Your task to perform on an android device: turn off location Image 0: 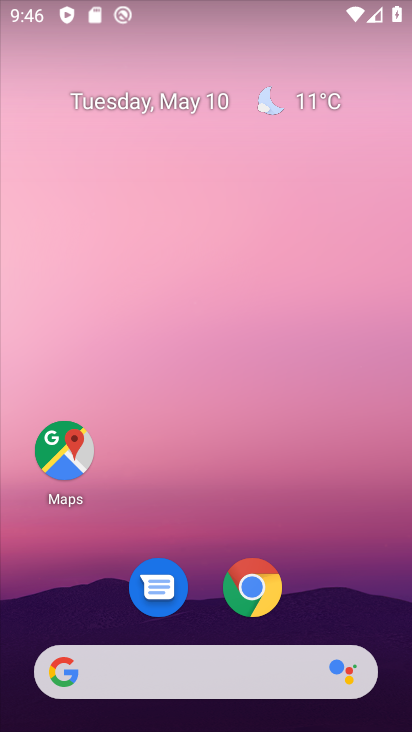
Step 0: drag from (197, 599) to (245, 299)
Your task to perform on an android device: turn off location Image 1: 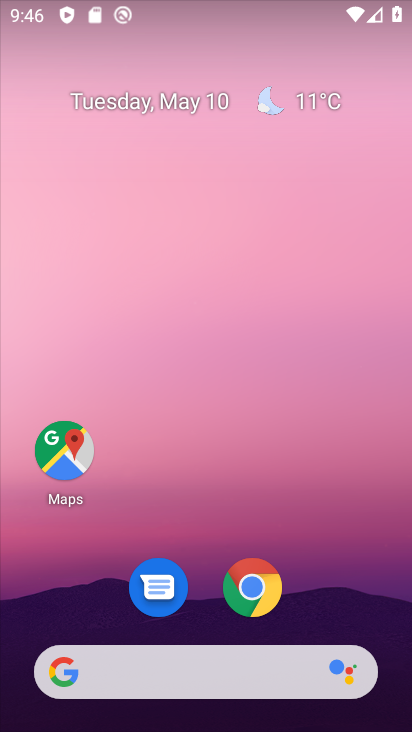
Step 1: drag from (249, 595) to (324, 111)
Your task to perform on an android device: turn off location Image 2: 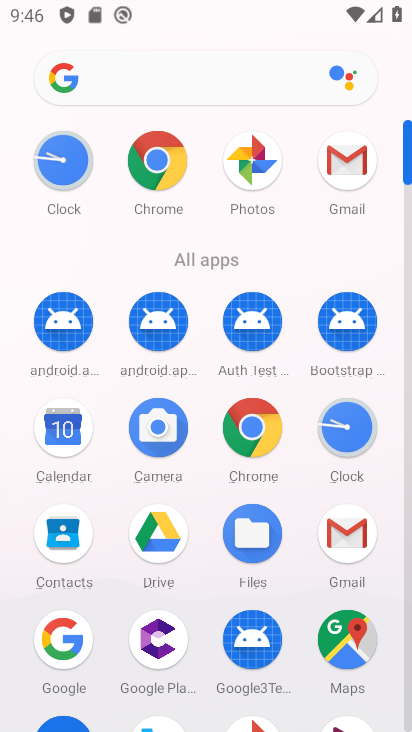
Step 2: drag from (224, 578) to (273, 65)
Your task to perform on an android device: turn off location Image 3: 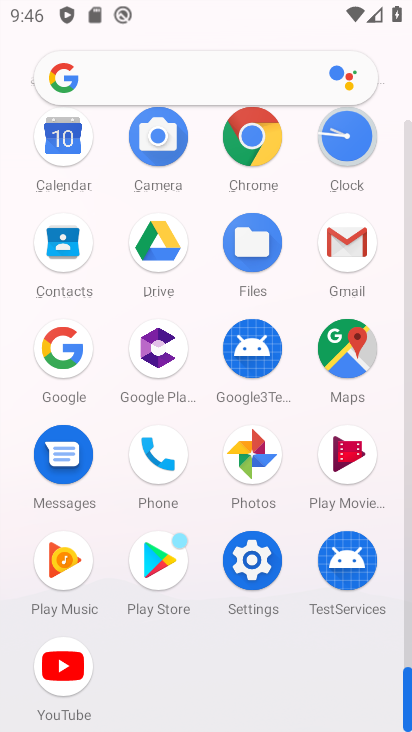
Step 3: click (241, 582)
Your task to perform on an android device: turn off location Image 4: 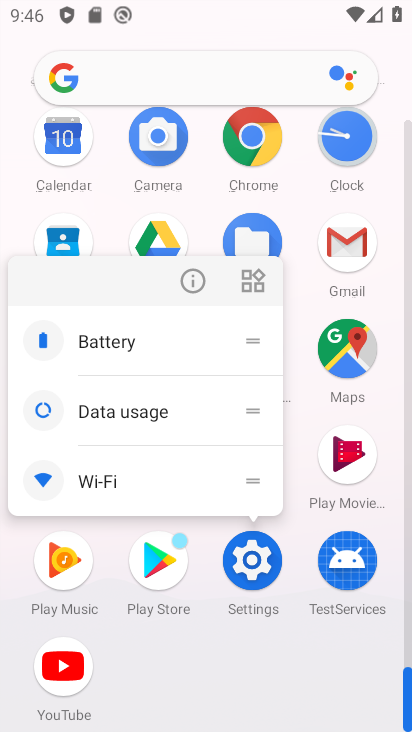
Step 4: click (254, 572)
Your task to perform on an android device: turn off location Image 5: 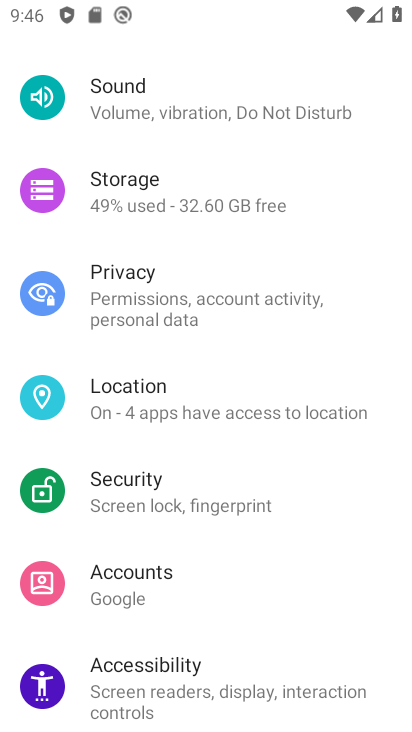
Step 5: click (148, 426)
Your task to perform on an android device: turn off location Image 6: 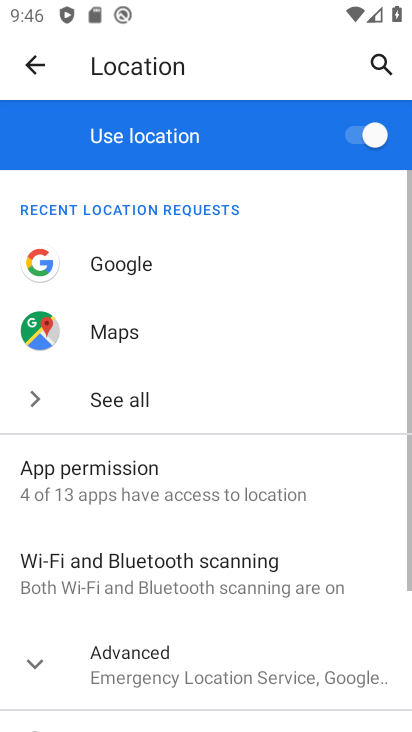
Step 6: click (331, 120)
Your task to perform on an android device: turn off location Image 7: 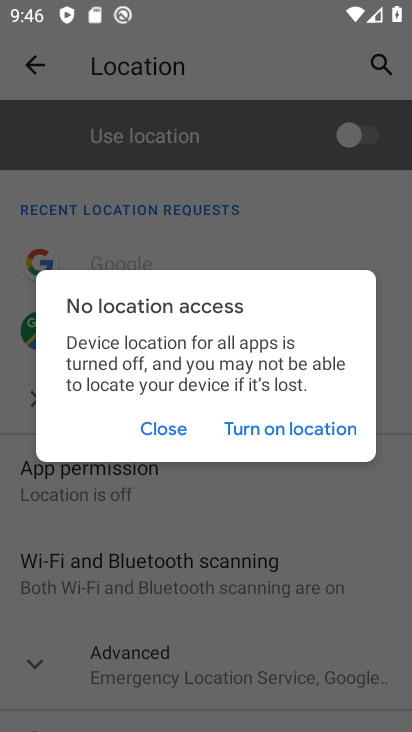
Step 7: click (162, 430)
Your task to perform on an android device: turn off location Image 8: 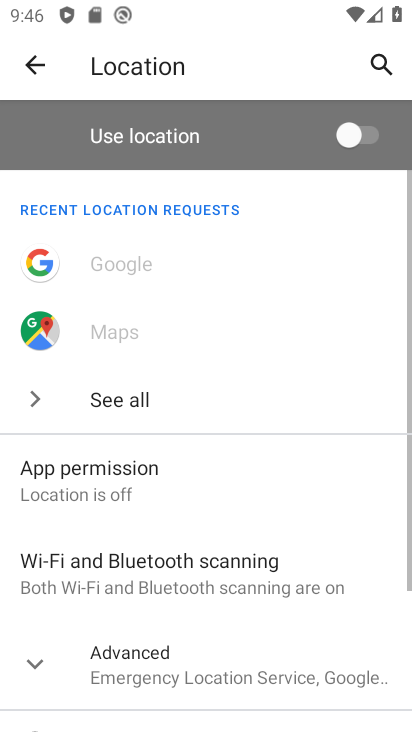
Step 8: task complete